Your task to perform on an android device: Open calendar and show me the second week of next month Image 0: 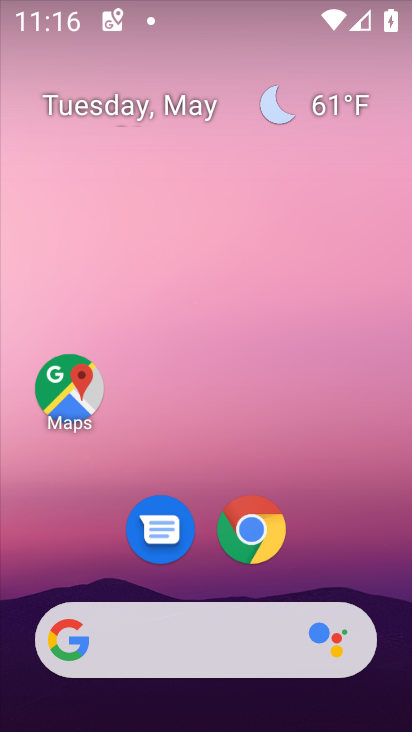
Step 0: drag from (360, 569) to (164, 242)
Your task to perform on an android device: Open calendar and show me the second week of next month Image 1: 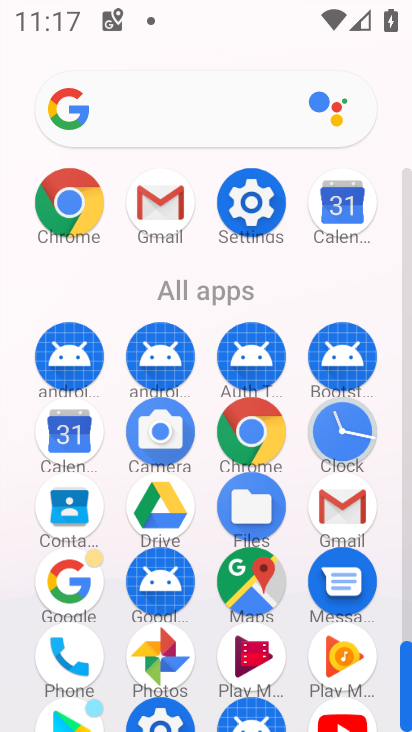
Step 1: click (85, 438)
Your task to perform on an android device: Open calendar and show me the second week of next month Image 2: 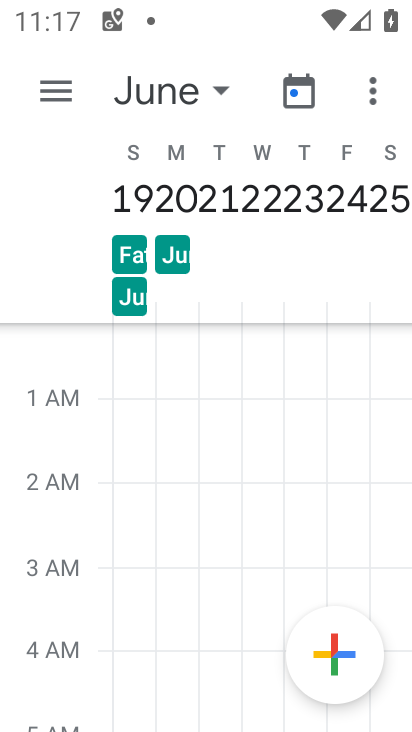
Step 2: click (184, 103)
Your task to perform on an android device: Open calendar and show me the second week of next month Image 3: 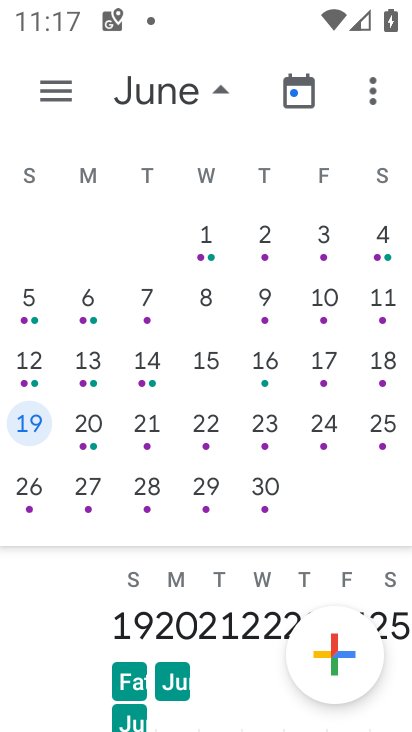
Step 3: click (31, 311)
Your task to perform on an android device: Open calendar and show me the second week of next month Image 4: 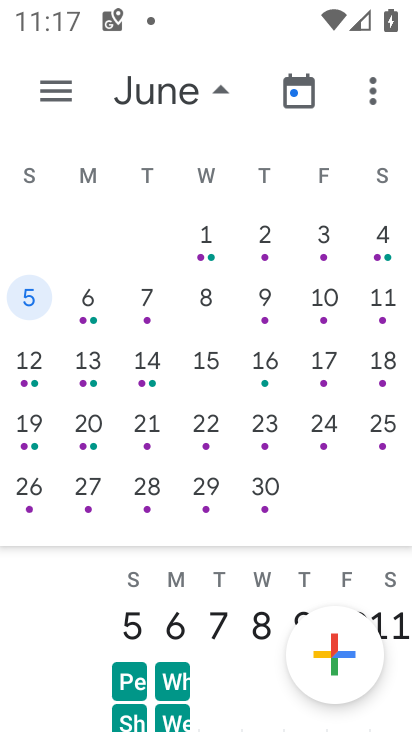
Step 4: click (170, 95)
Your task to perform on an android device: Open calendar and show me the second week of next month Image 5: 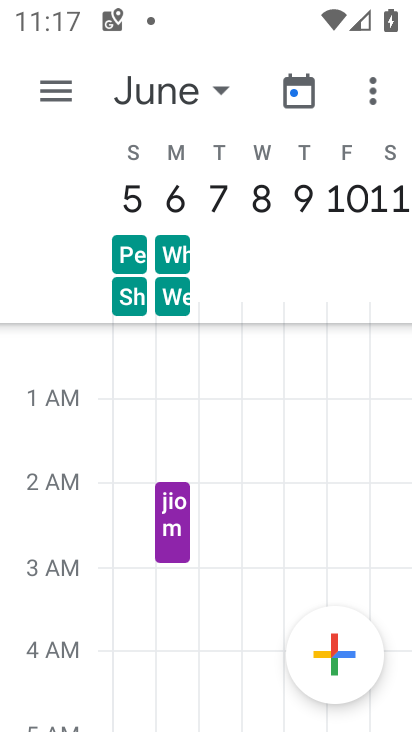
Step 5: task complete